Your task to perform on an android device: Show me popular games on the Play Store Image 0: 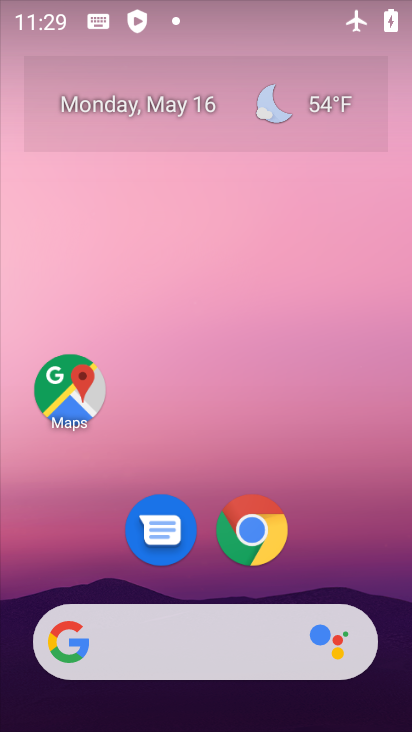
Step 0: drag from (383, 577) to (383, 138)
Your task to perform on an android device: Show me popular games on the Play Store Image 1: 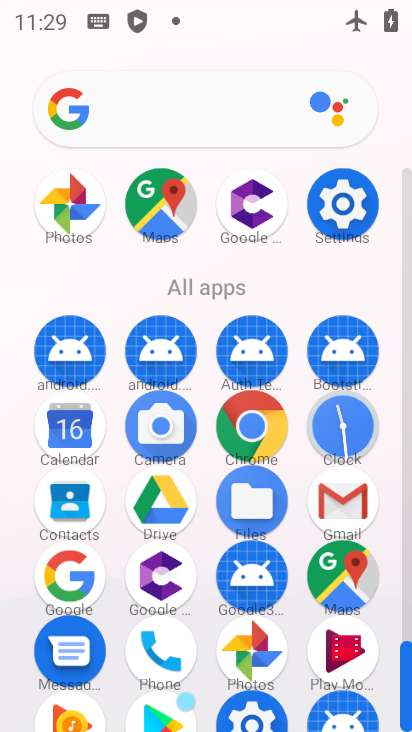
Step 1: drag from (390, 551) to (400, 337)
Your task to perform on an android device: Show me popular games on the Play Store Image 2: 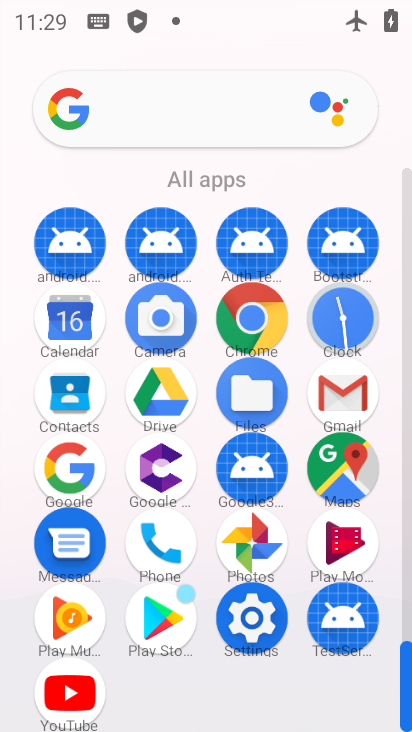
Step 2: click (157, 618)
Your task to perform on an android device: Show me popular games on the Play Store Image 3: 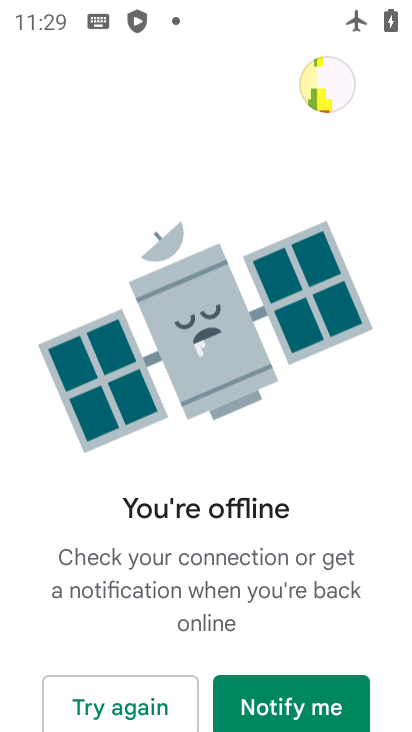
Step 3: task complete